Your task to perform on an android device: toggle javascript in the chrome app Image 0: 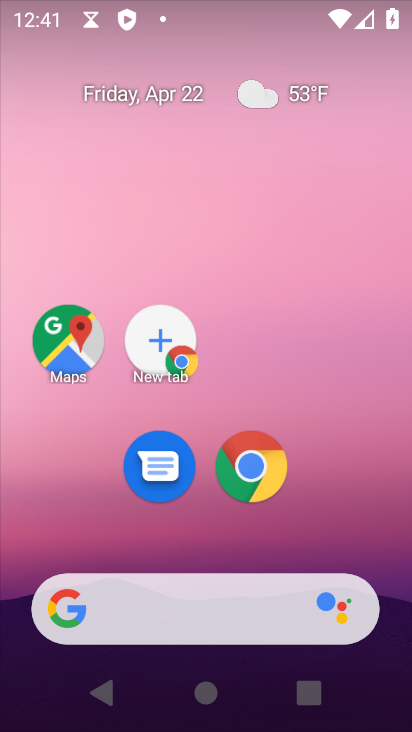
Step 0: drag from (382, 563) to (305, 43)
Your task to perform on an android device: toggle javascript in the chrome app Image 1: 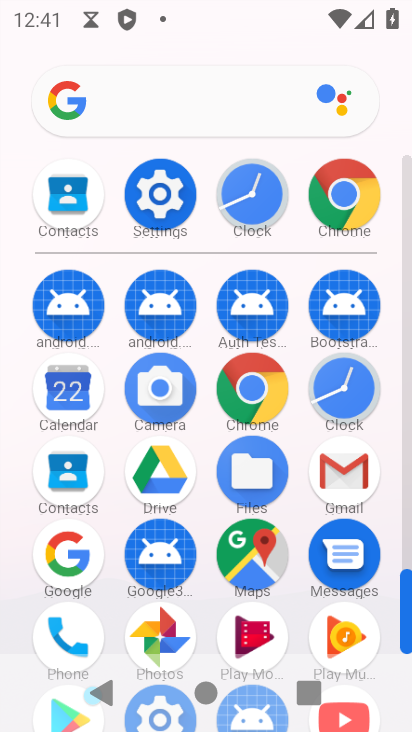
Step 1: drag from (19, 601) to (19, 248)
Your task to perform on an android device: toggle javascript in the chrome app Image 2: 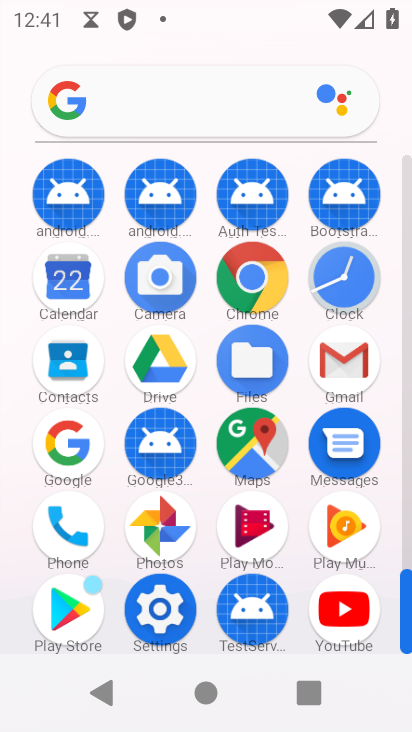
Step 2: click (252, 278)
Your task to perform on an android device: toggle javascript in the chrome app Image 3: 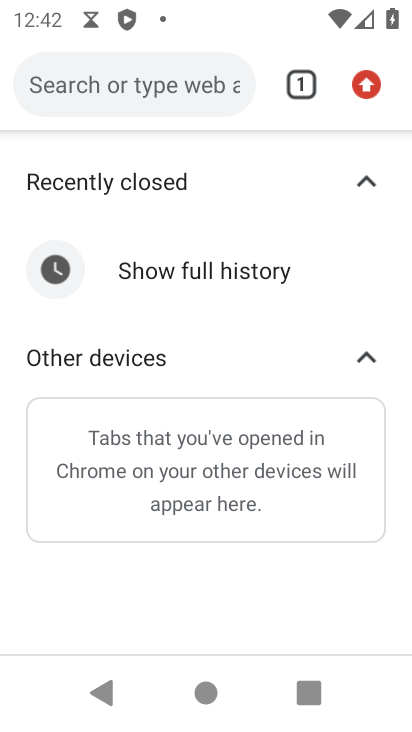
Step 3: drag from (365, 81) to (116, 512)
Your task to perform on an android device: toggle javascript in the chrome app Image 4: 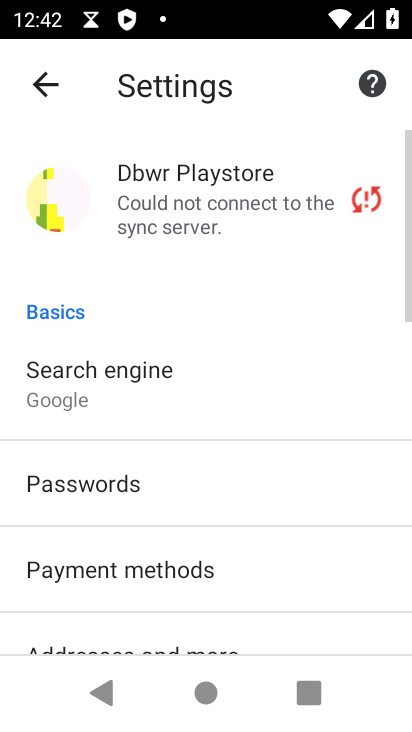
Step 4: drag from (230, 506) to (228, 190)
Your task to perform on an android device: toggle javascript in the chrome app Image 5: 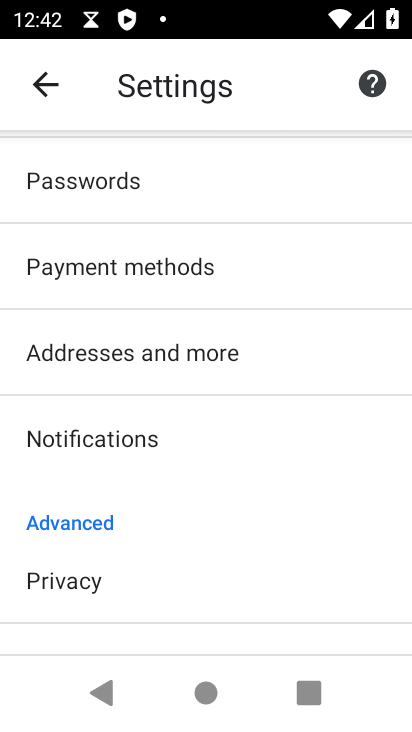
Step 5: drag from (248, 551) to (283, 158)
Your task to perform on an android device: toggle javascript in the chrome app Image 6: 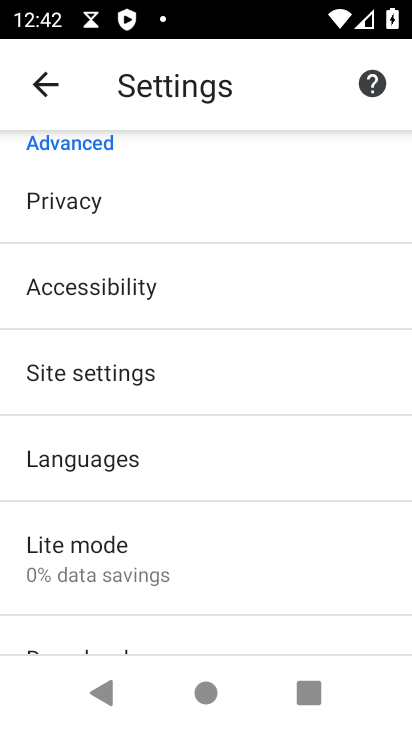
Step 6: drag from (196, 524) to (191, 320)
Your task to perform on an android device: toggle javascript in the chrome app Image 7: 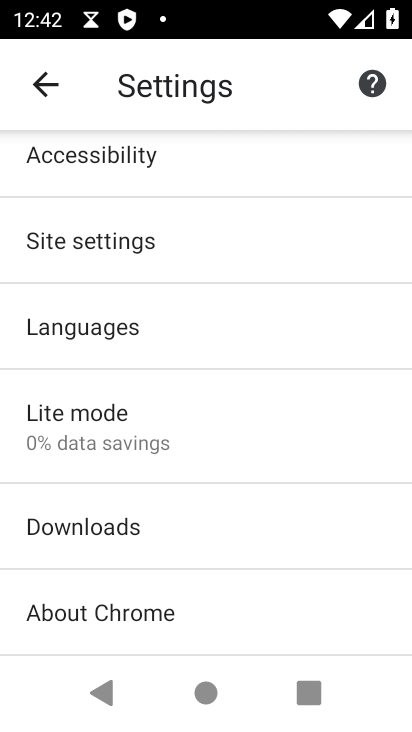
Step 7: click (145, 243)
Your task to perform on an android device: toggle javascript in the chrome app Image 8: 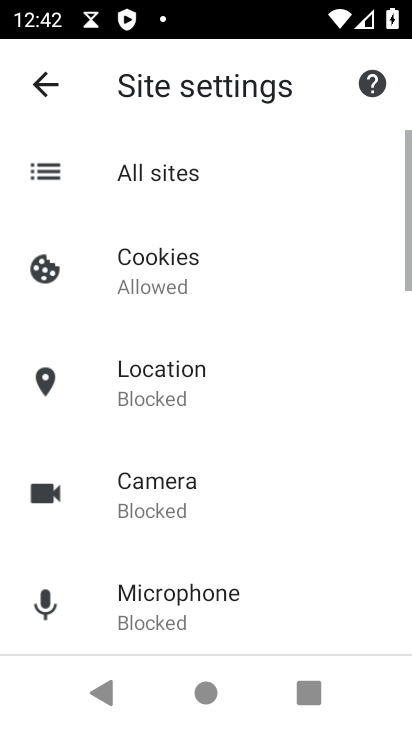
Step 8: drag from (270, 525) to (298, 209)
Your task to perform on an android device: toggle javascript in the chrome app Image 9: 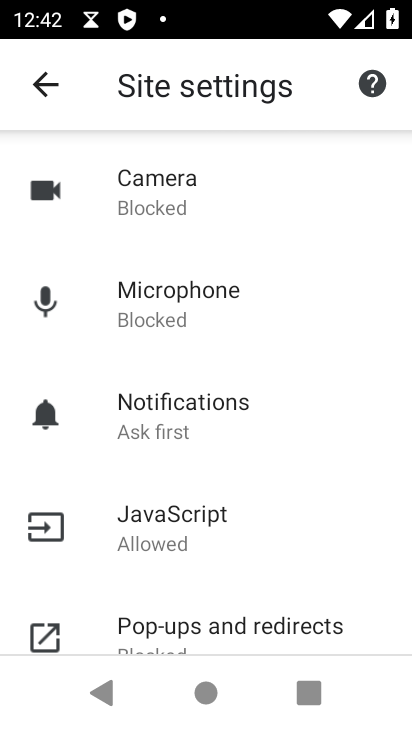
Step 9: drag from (284, 517) to (293, 254)
Your task to perform on an android device: toggle javascript in the chrome app Image 10: 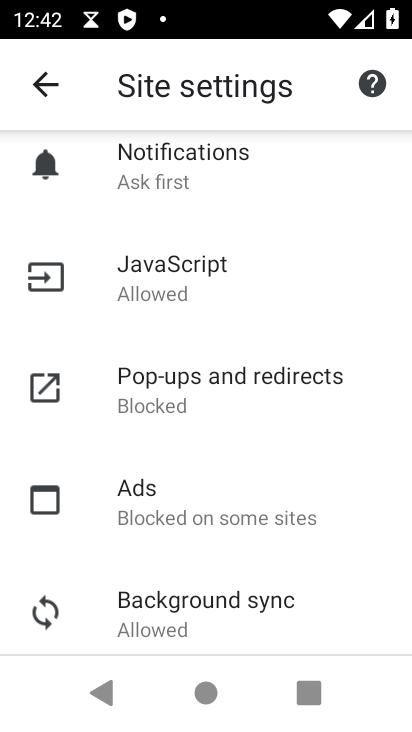
Step 10: click (225, 270)
Your task to perform on an android device: toggle javascript in the chrome app Image 11: 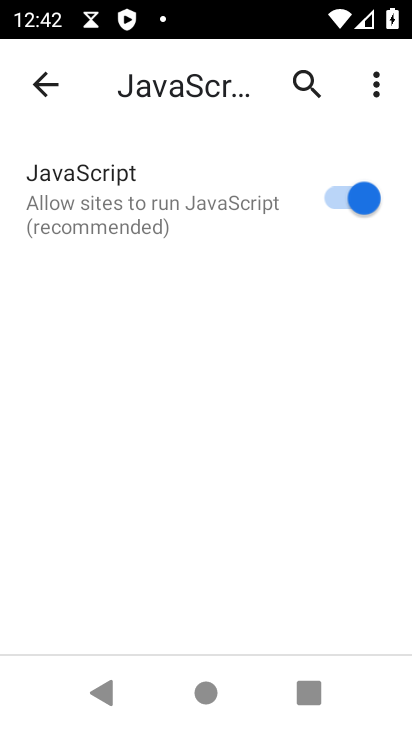
Step 11: click (340, 211)
Your task to perform on an android device: toggle javascript in the chrome app Image 12: 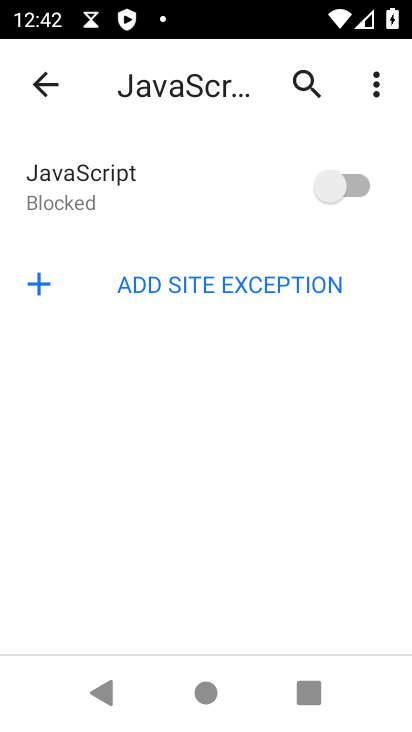
Step 12: task complete